Your task to perform on an android device: Open ESPN.com Image 0: 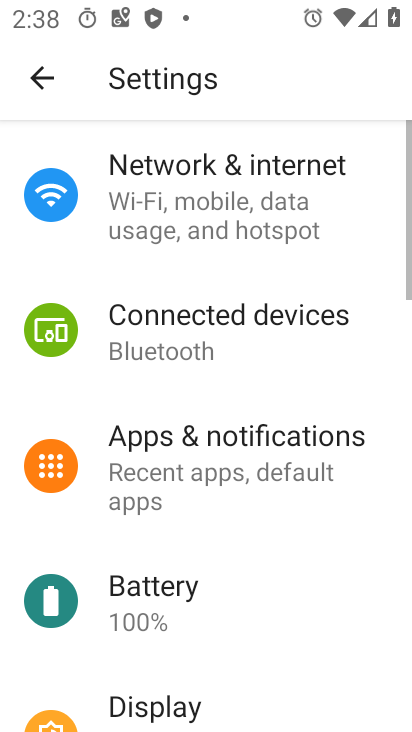
Step 0: press home button
Your task to perform on an android device: Open ESPN.com Image 1: 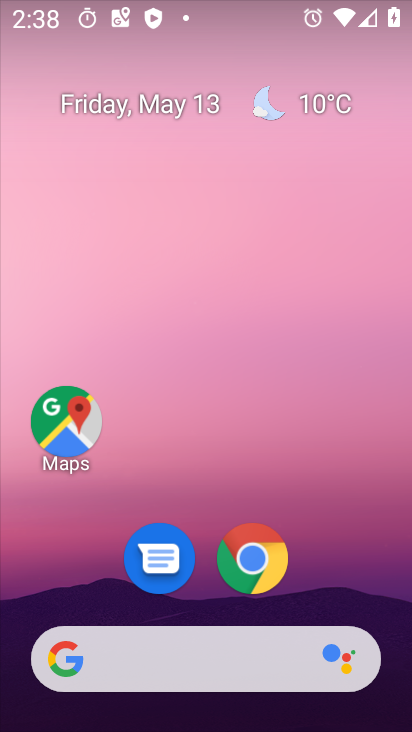
Step 1: click (271, 552)
Your task to perform on an android device: Open ESPN.com Image 2: 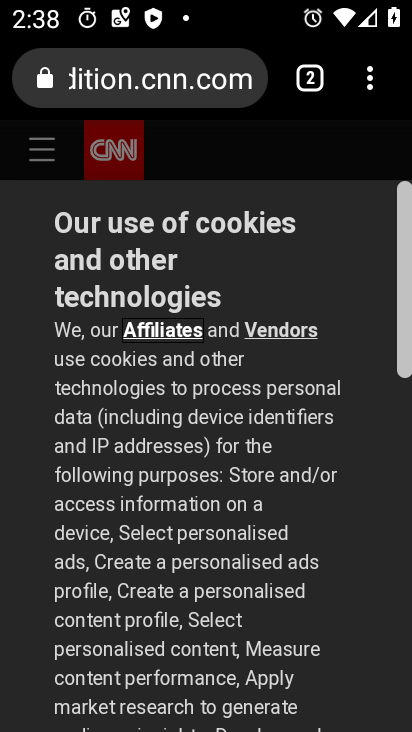
Step 2: click (312, 82)
Your task to perform on an android device: Open ESPN.com Image 3: 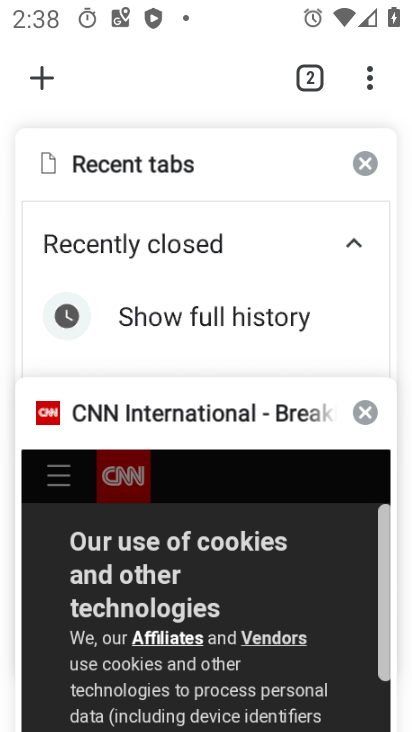
Step 3: click (63, 65)
Your task to perform on an android device: Open ESPN.com Image 4: 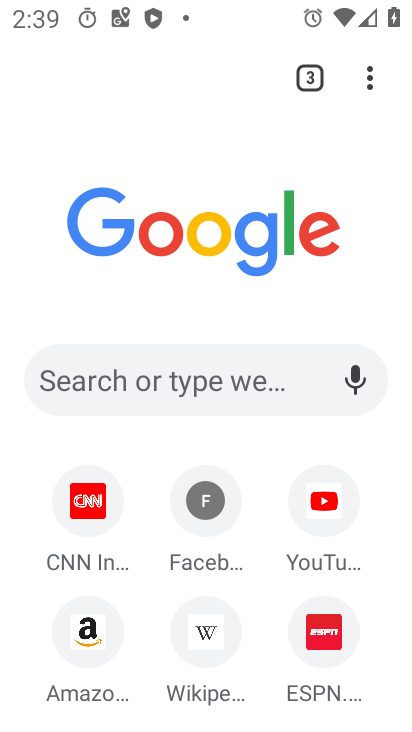
Step 4: click (170, 376)
Your task to perform on an android device: Open ESPN.com Image 5: 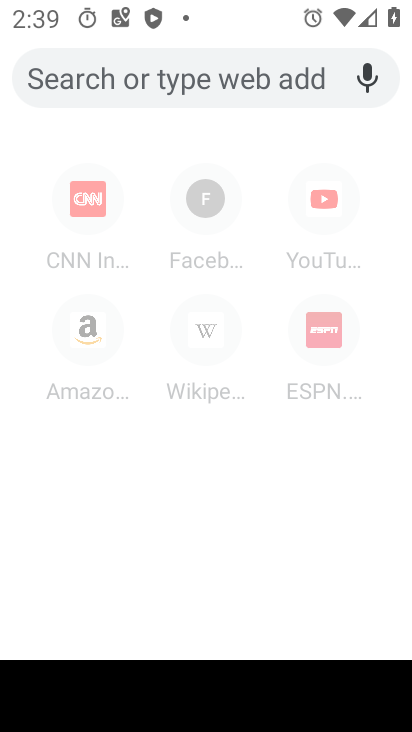
Step 5: click (316, 331)
Your task to perform on an android device: Open ESPN.com Image 6: 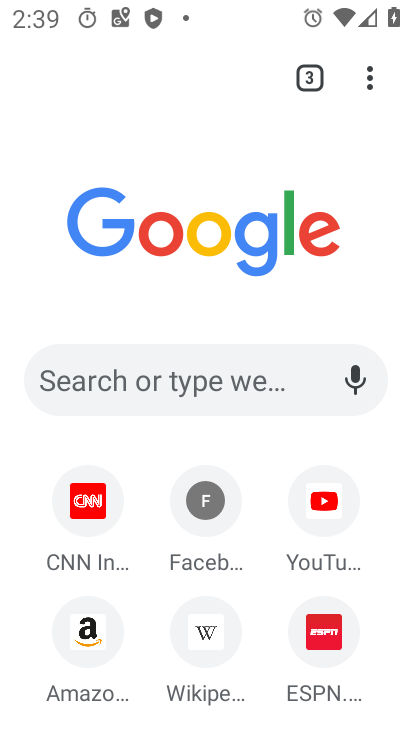
Step 6: click (330, 625)
Your task to perform on an android device: Open ESPN.com Image 7: 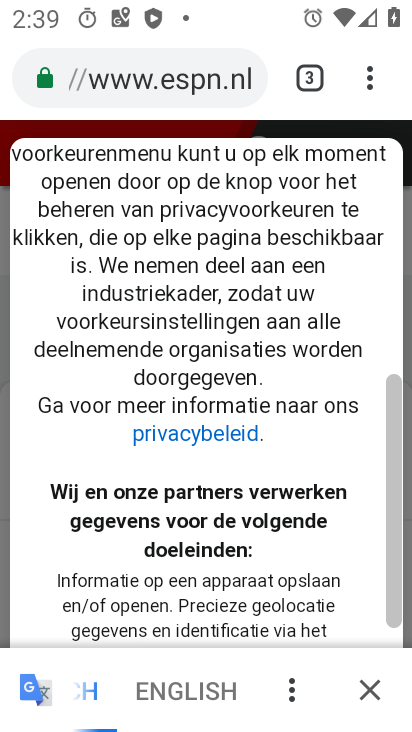
Step 7: task complete